Your task to perform on an android device: toggle notifications settings in the gmail app Image 0: 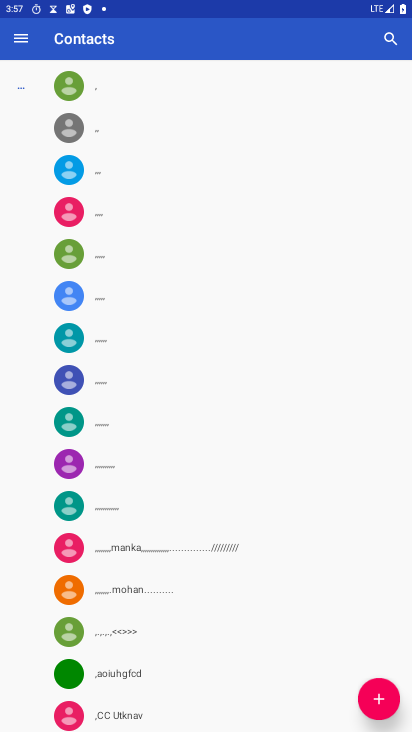
Step 0: press home button
Your task to perform on an android device: toggle notifications settings in the gmail app Image 1: 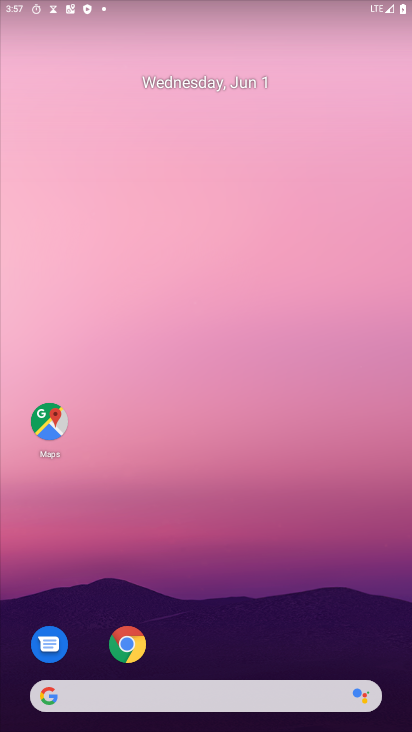
Step 1: drag from (259, 626) to (317, 109)
Your task to perform on an android device: toggle notifications settings in the gmail app Image 2: 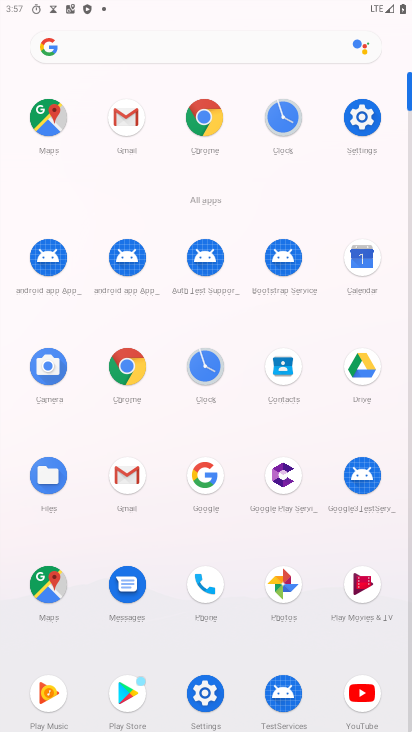
Step 2: click (126, 114)
Your task to perform on an android device: toggle notifications settings in the gmail app Image 3: 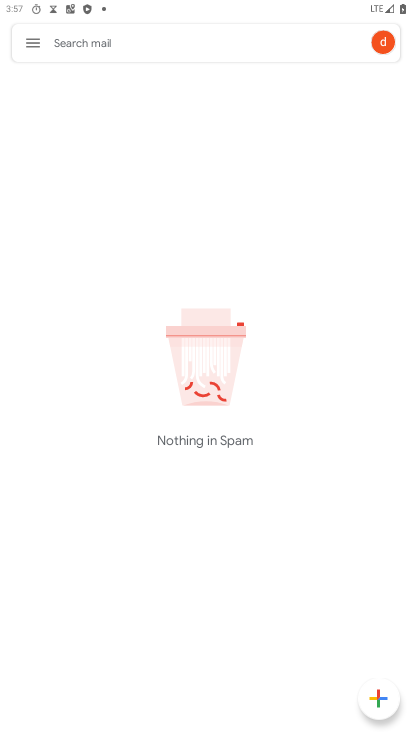
Step 3: click (22, 44)
Your task to perform on an android device: toggle notifications settings in the gmail app Image 4: 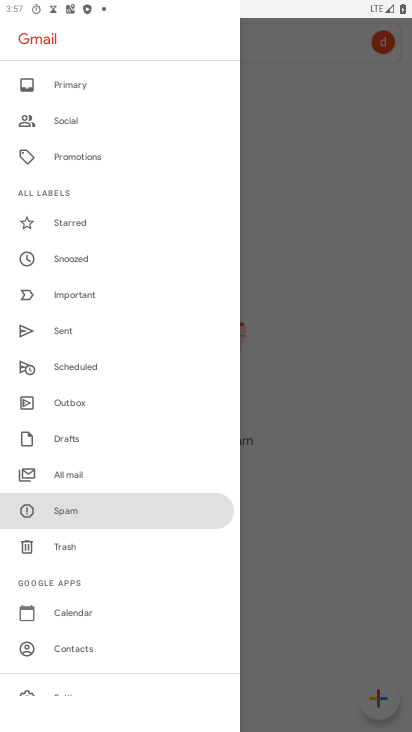
Step 4: drag from (209, 682) to (241, 133)
Your task to perform on an android device: toggle notifications settings in the gmail app Image 5: 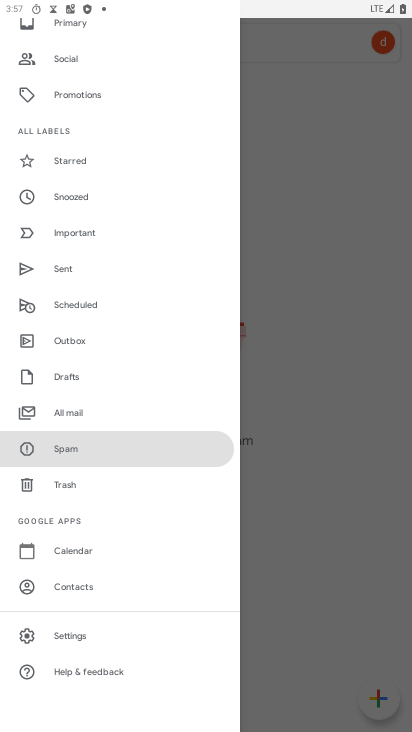
Step 5: click (72, 635)
Your task to perform on an android device: toggle notifications settings in the gmail app Image 6: 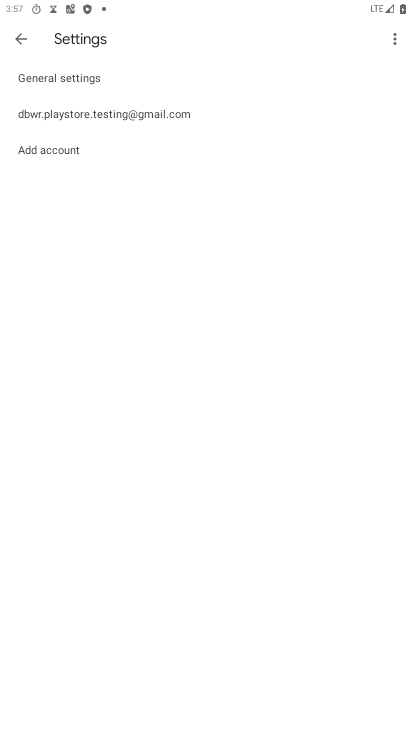
Step 6: click (66, 111)
Your task to perform on an android device: toggle notifications settings in the gmail app Image 7: 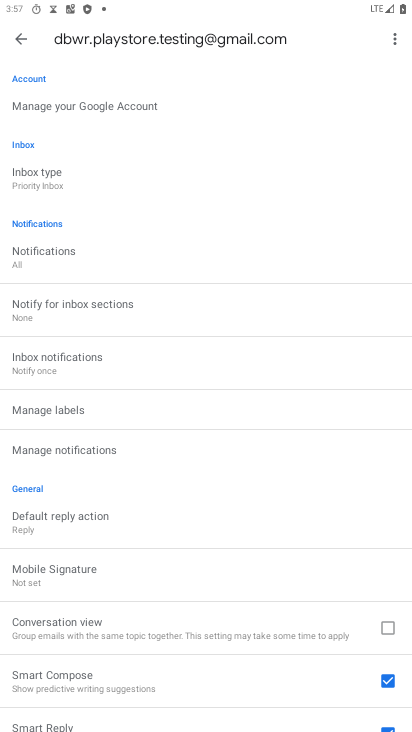
Step 7: click (68, 446)
Your task to perform on an android device: toggle notifications settings in the gmail app Image 8: 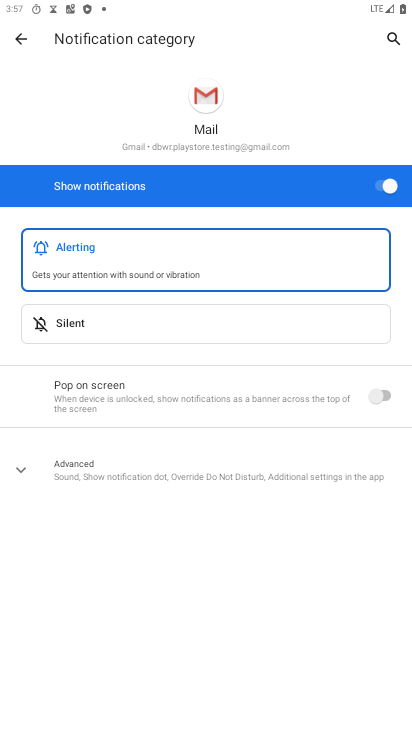
Step 8: click (383, 181)
Your task to perform on an android device: toggle notifications settings in the gmail app Image 9: 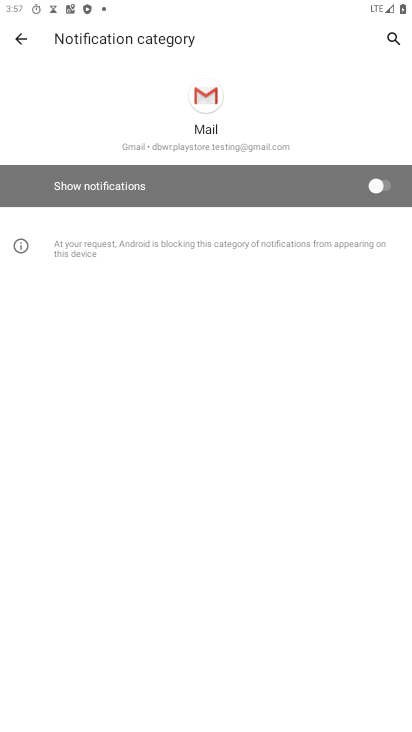
Step 9: task complete